Your task to perform on an android device: check google app version Image 0: 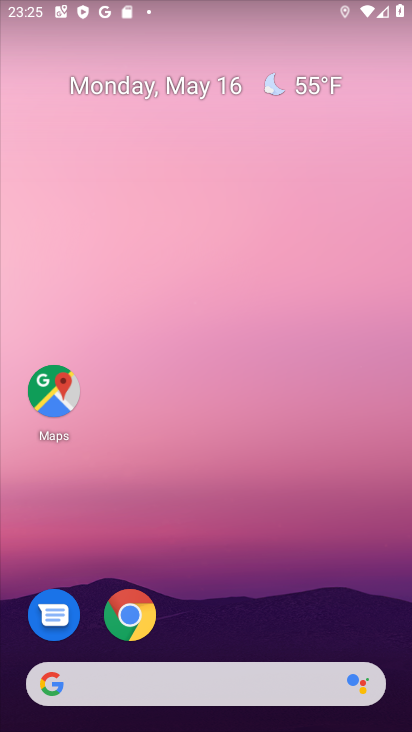
Step 0: drag from (196, 644) to (140, 86)
Your task to perform on an android device: check google app version Image 1: 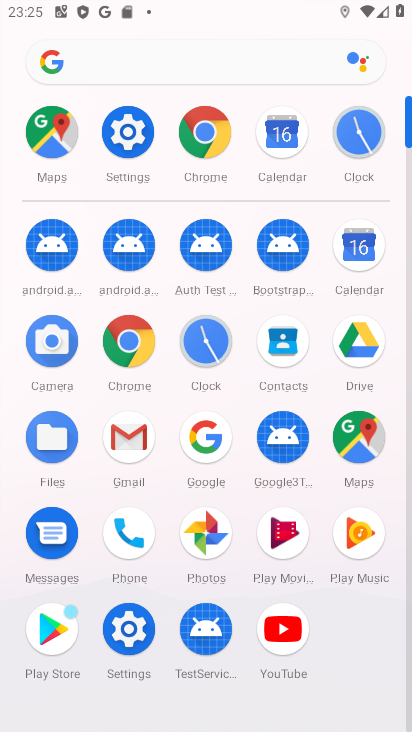
Step 1: click (209, 437)
Your task to perform on an android device: check google app version Image 2: 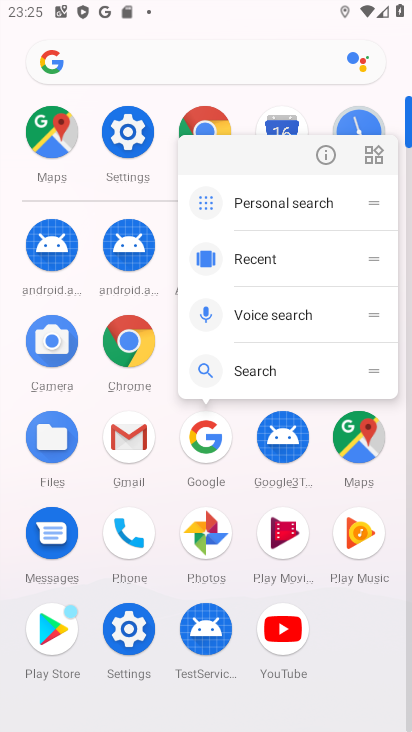
Step 2: click (314, 157)
Your task to perform on an android device: check google app version Image 3: 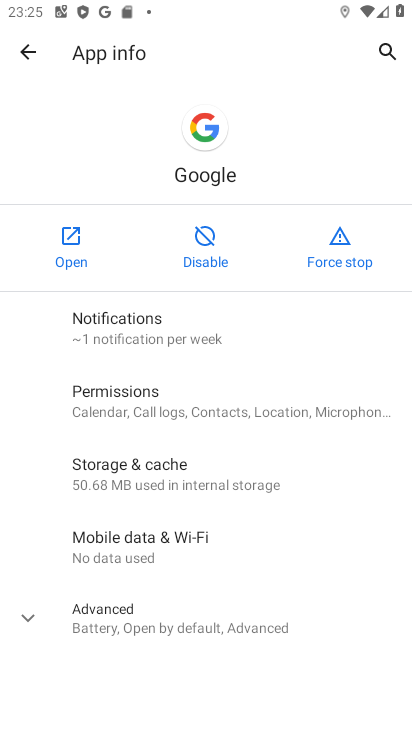
Step 3: click (218, 631)
Your task to perform on an android device: check google app version Image 4: 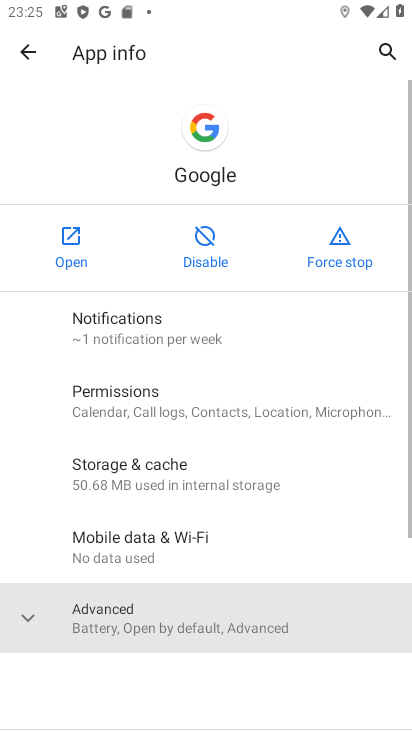
Step 4: task complete